Your task to perform on an android device: What is the news today? Image 0: 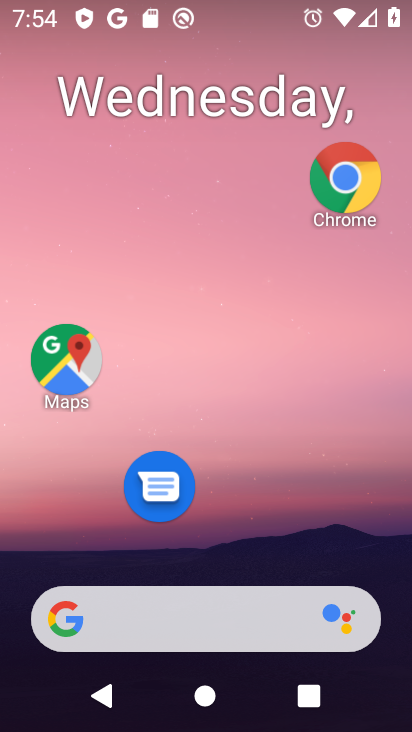
Step 0: drag from (261, 557) to (370, 207)
Your task to perform on an android device: What is the news today? Image 1: 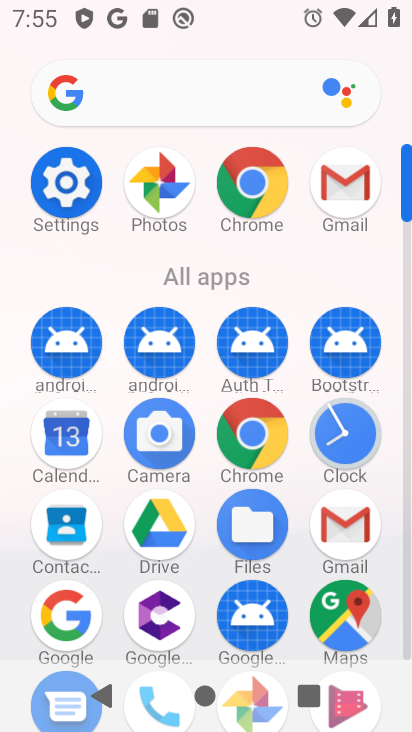
Step 1: click (74, 625)
Your task to perform on an android device: What is the news today? Image 2: 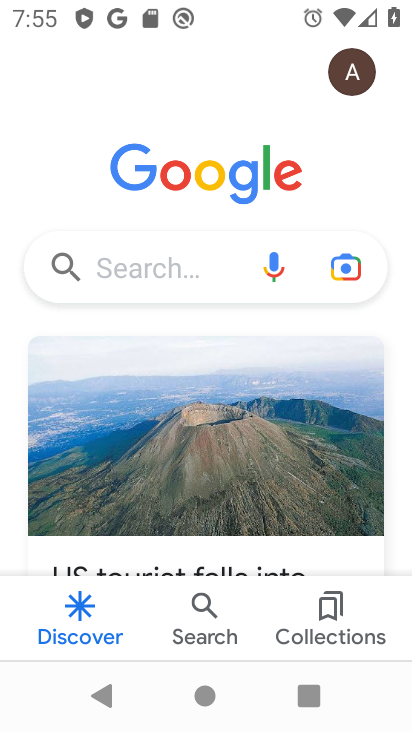
Step 2: click (205, 287)
Your task to perform on an android device: What is the news today? Image 3: 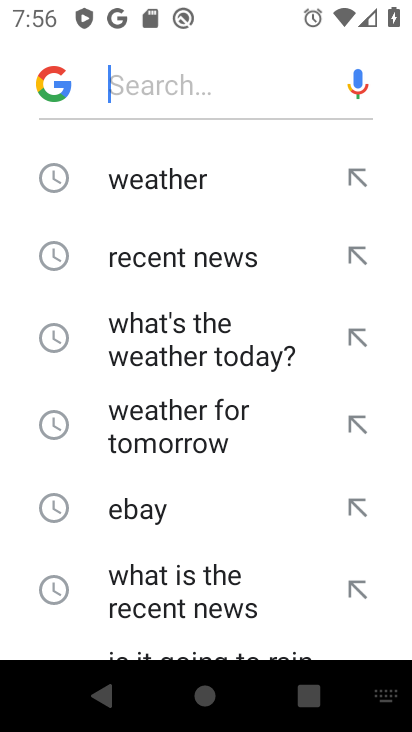
Step 3: click (247, 264)
Your task to perform on an android device: What is the news today? Image 4: 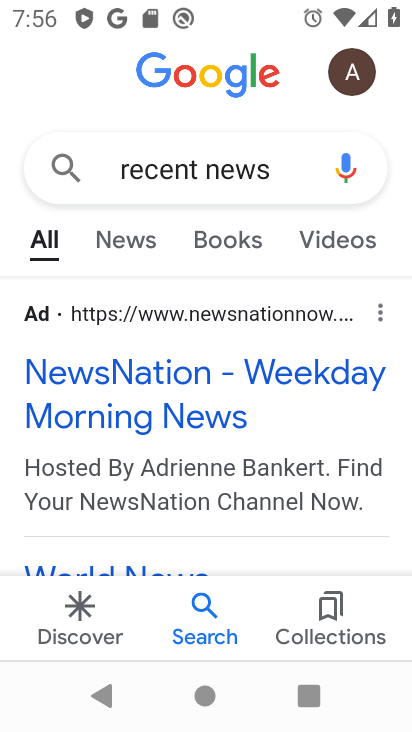
Step 4: click (138, 253)
Your task to perform on an android device: What is the news today? Image 5: 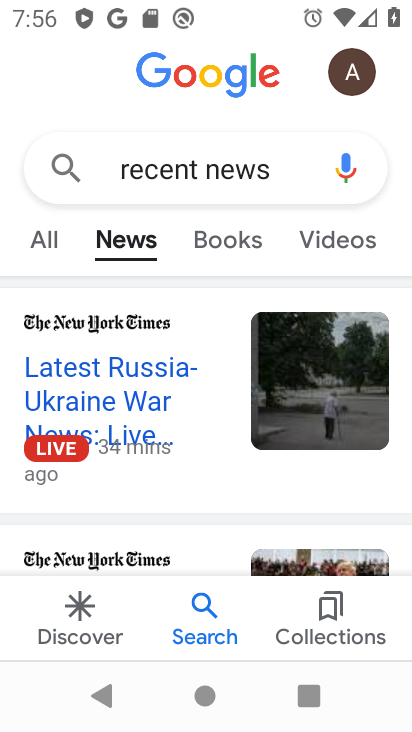
Step 5: task complete